Your task to perform on an android device: Go to Google maps Image 0: 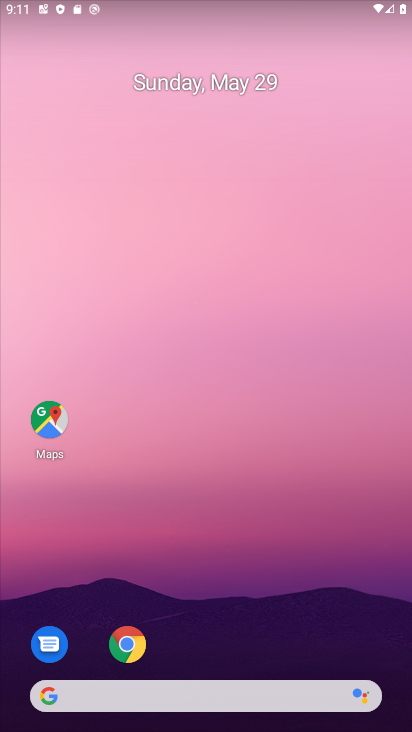
Step 0: drag from (249, 624) to (232, 382)
Your task to perform on an android device: Go to Google maps Image 1: 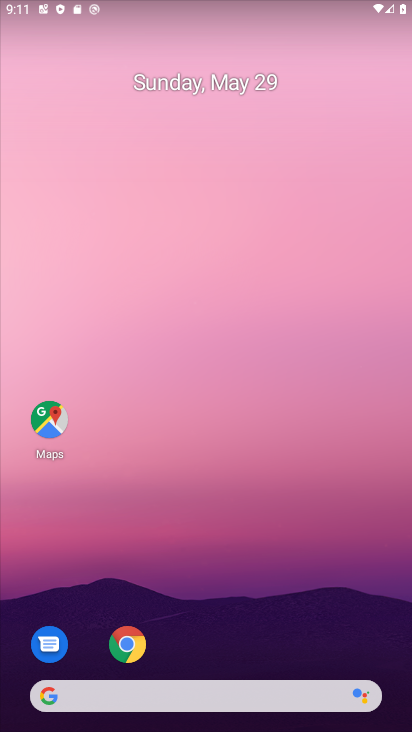
Step 1: drag from (227, 649) to (281, 268)
Your task to perform on an android device: Go to Google maps Image 2: 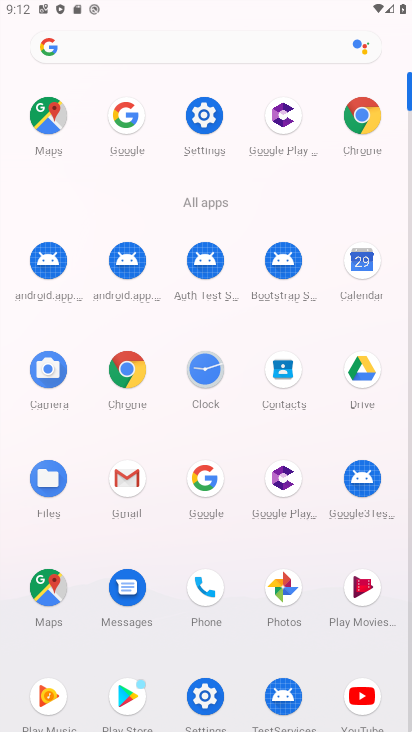
Step 2: click (207, 474)
Your task to perform on an android device: Go to Google maps Image 3: 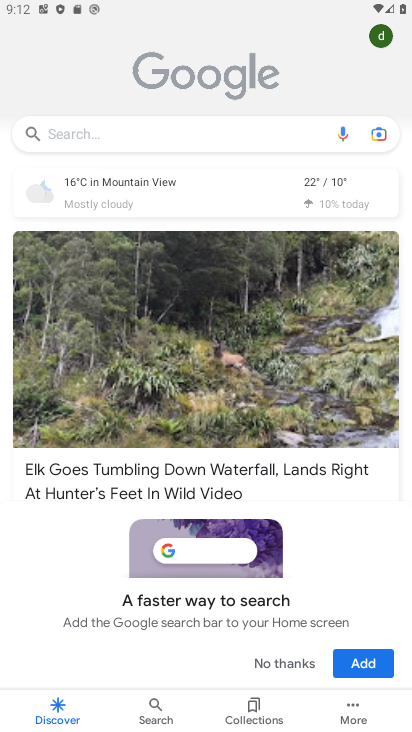
Step 3: press home button
Your task to perform on an android device: Go to Google maps Image 4: 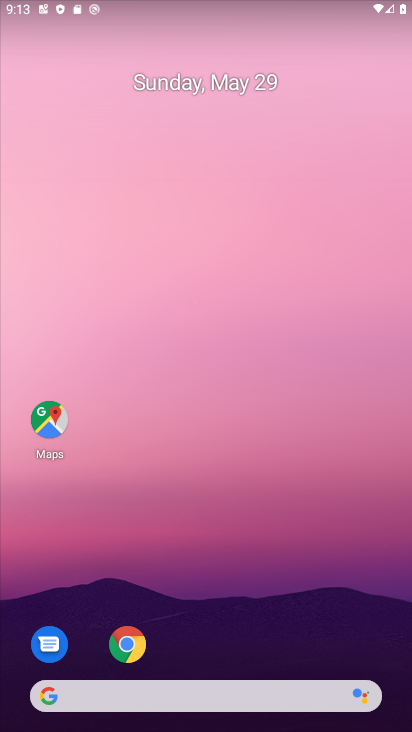
Step 4: click (45, 411)
Your task to perform on an android device: Go to Google maps Image 5: 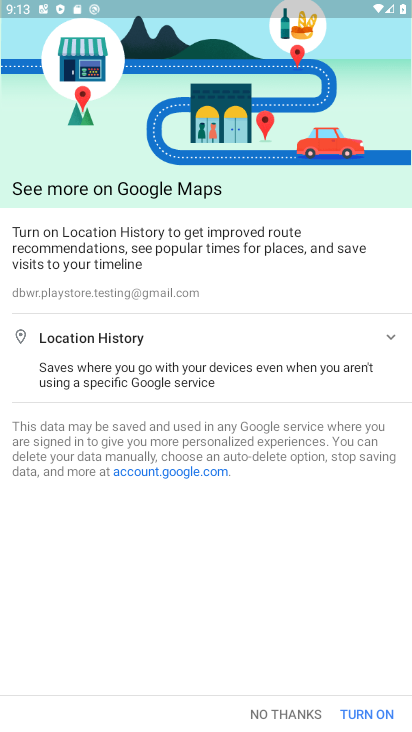
Step 5: click (280, 717)
Your task to perform on an android device: Go to Google maps Image 6: 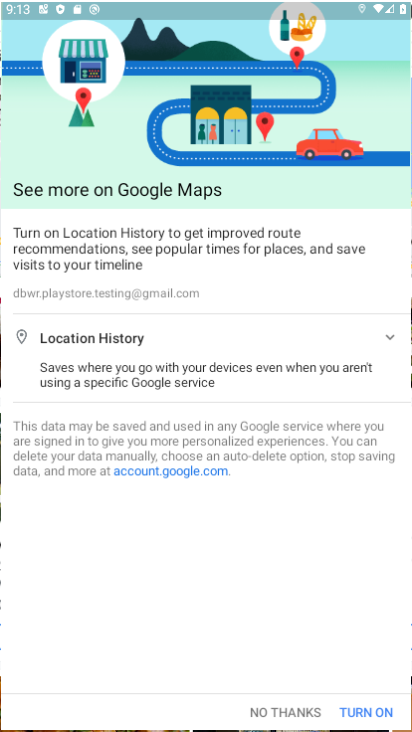
Step 6: task complete